Your task to perform on an android device: check data usage Image 0: 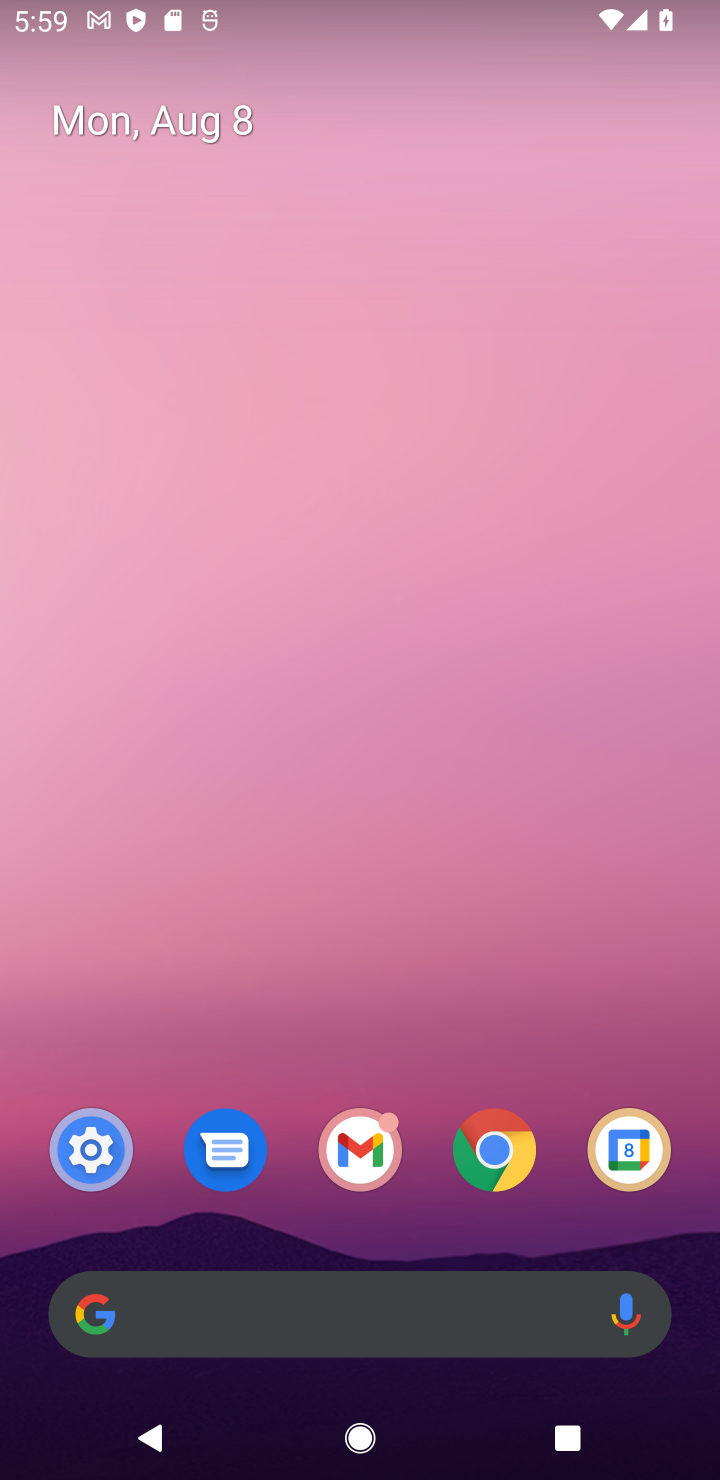
Step 0: task complete